Your task to perform on an android device: set default search engine in the chrome app Image 0: 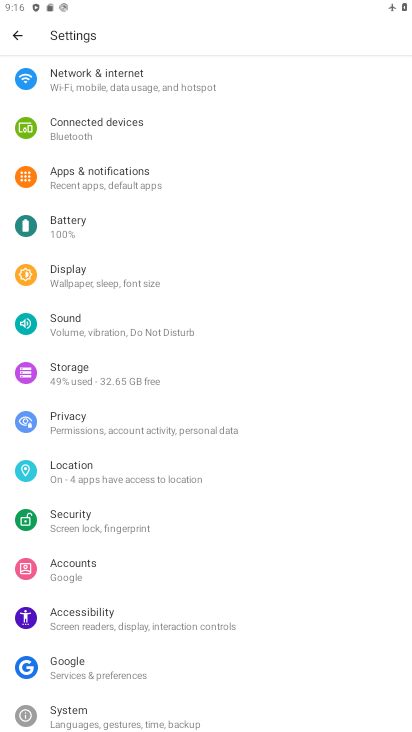
Step 0: press home button
Your task to perform on an android device: set default search engine in the chrome app Image 1: 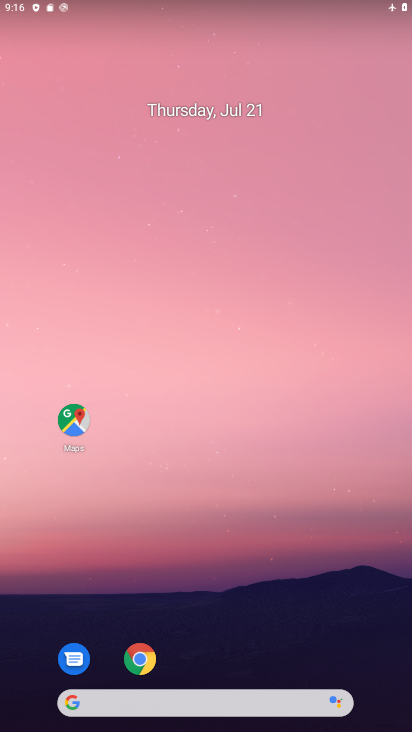
Step 1: drag from (227, 629) to (227, 1)
Your task to perform on an android device: set default search engine in the chrome app Image 2: 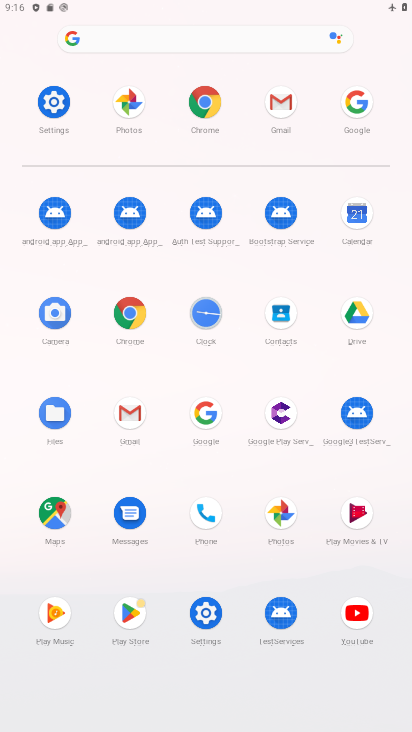
Step 2: click (131, 321)
Your task to perform on an android device: set default search engine in the chrome app Image 3: 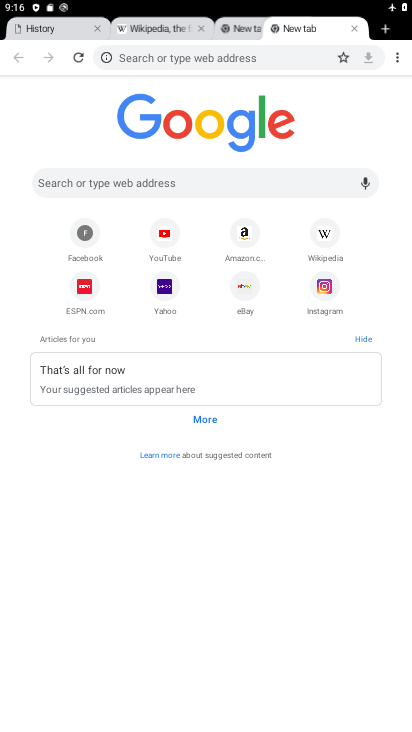
Step 3: drag from (396, 51) to (277, 255)
Your task to perform on an android device: set default search engine in the chrome app Image 4: 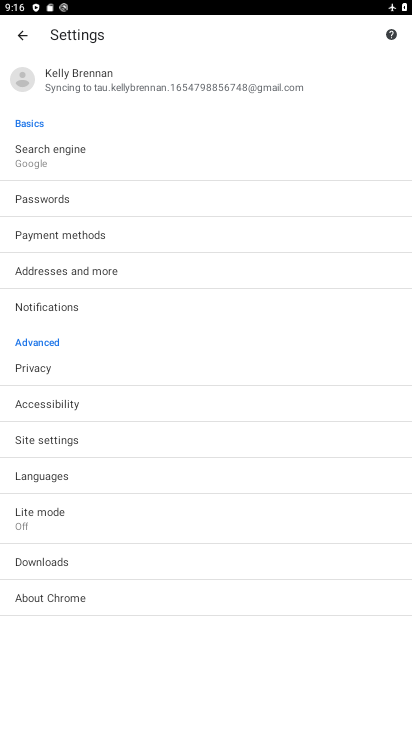
Step 4: click (53, 152)
Your task to perform on an android device: set default search engine in the chrome app Image 5: 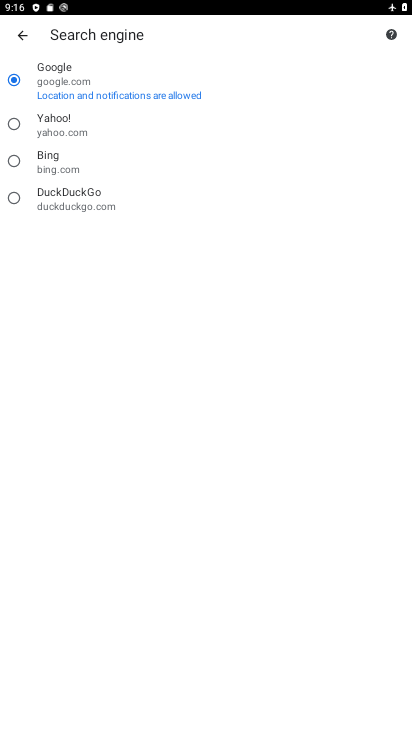
Step 5: click (16, 65)
Your task to perform on an android device: set default search engine in the chrome app Image 6: 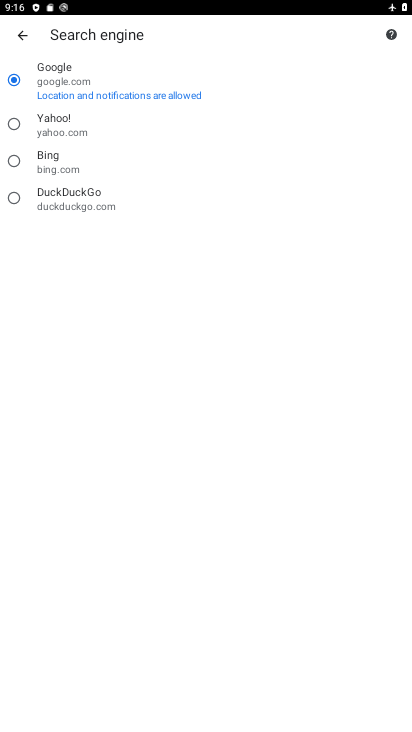
Step 6: task complete